Your task to perform on an android device: toggle sleep mode Image 0: 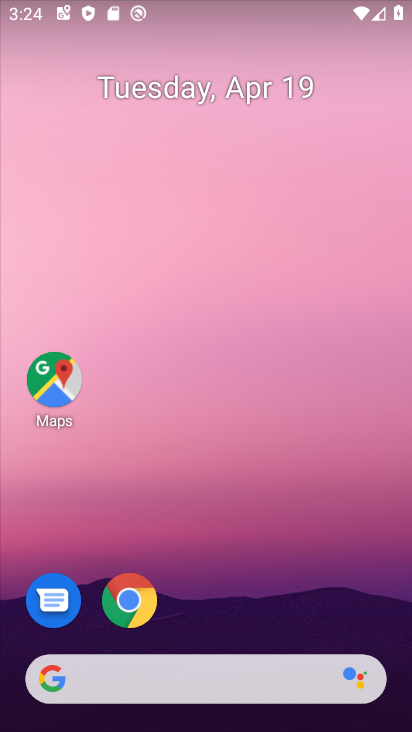
Step 0: click (242, 90)
Your task to perform on an android device: toggle sleep mode Image 1: 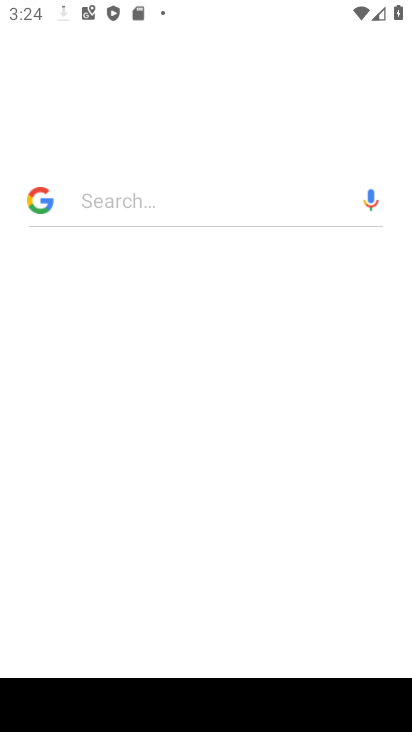
Step 1: drag from (165, 189) to (170, 543)
Your task to perform on an android device: toggle sleep mode Image 2: 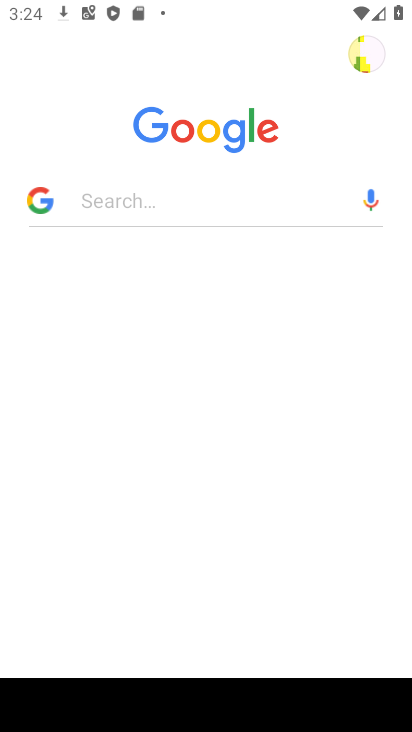
Step 2: drag from (193, 11) to (218, 537)
Your task to perform on an android device: toggle sleep mode Image 3: 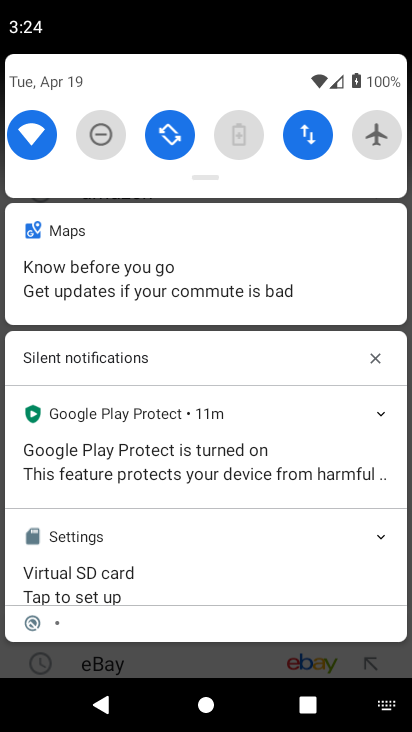
Step 3: drag from (224, 91) to (171, 595)
Your task to perform on an android device: toggle sleep mode Image 4: 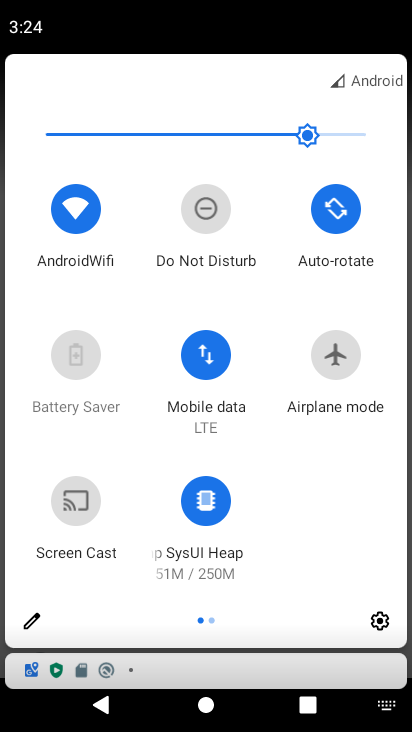
Step 4: click (380, 608)
Your task to perform on an android device: toggle sleep mode Image 5: 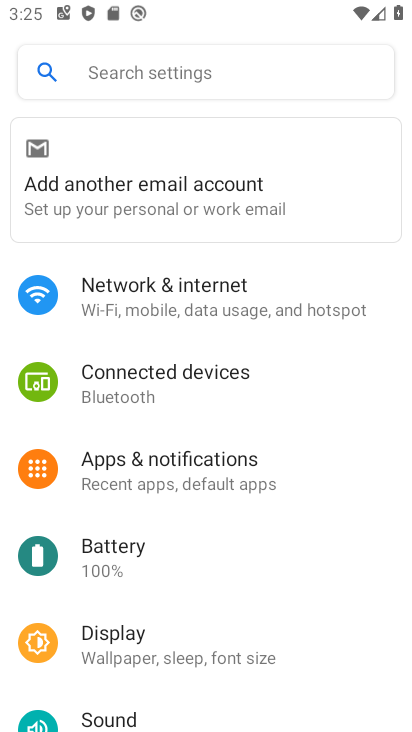
Step 5: task complete